Your task to perform on an android device: turn off notifications settings in the gmail app Image 0: 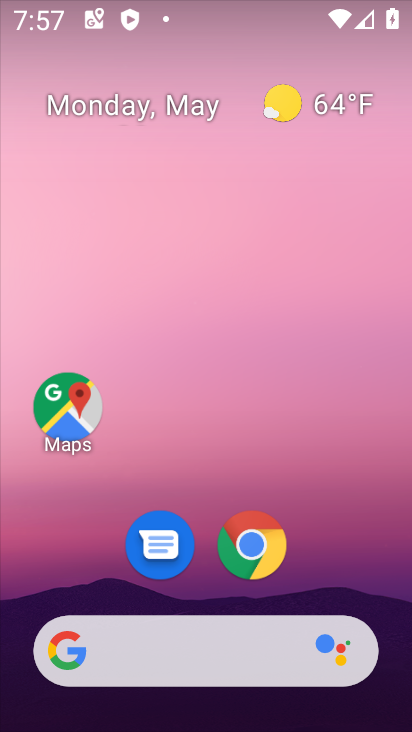
Step 0: drag from (132, 628) to (210, 47)
Your task to perform on an android device: turn off notifications settings in the gmail app Image 1: 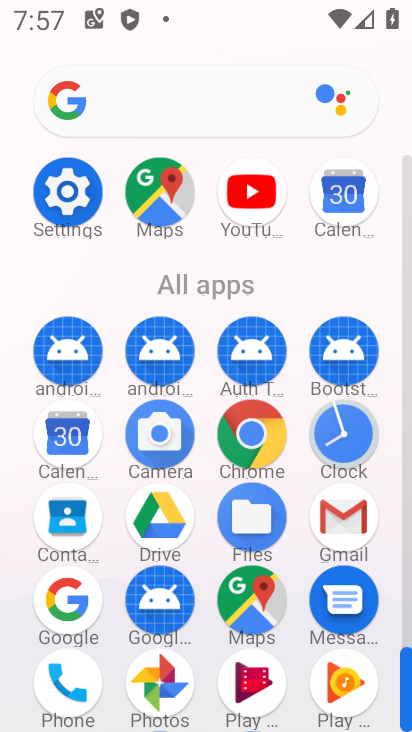
Step 1: click (329, 508)
Your task to perform on an android device: turn off notifications settings in the gmail app Image 2: 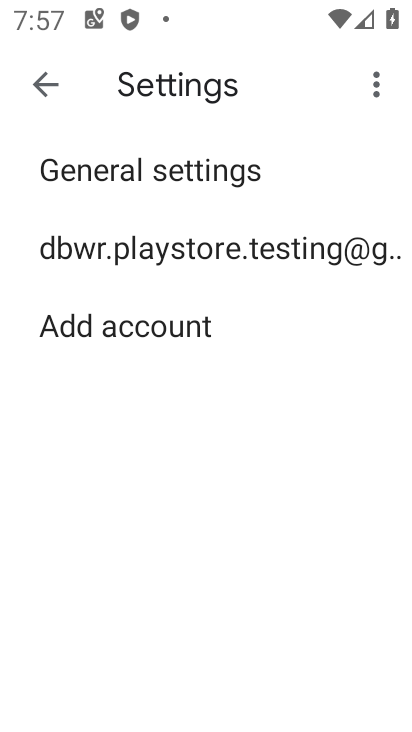
Step 2: click (163, 247)
Your task to perform on an android device: turn off notifications settings in the gmail app Image 3: 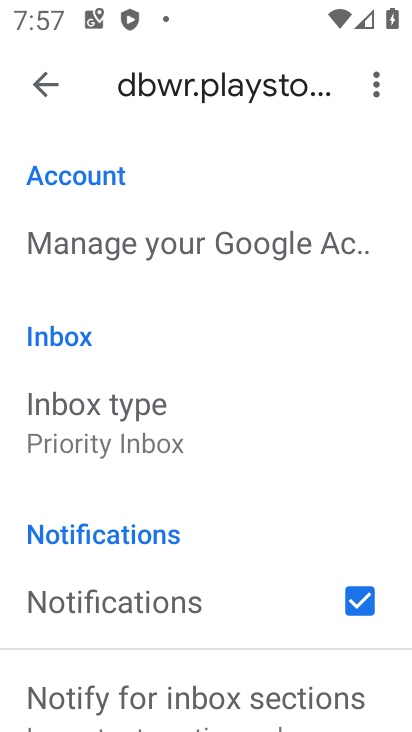
Step 3: drag from (171, 636) to (175, 49)
Your task to perform on an android device: turn off notifications settings in the gmail app Image 4: 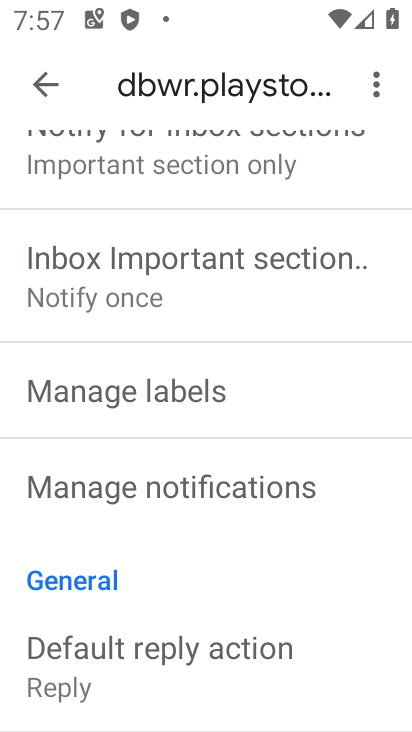
Step 4: click (201, 461)
Your task to perform on an android device: turn off notifications settings in the gmail app Image 5: 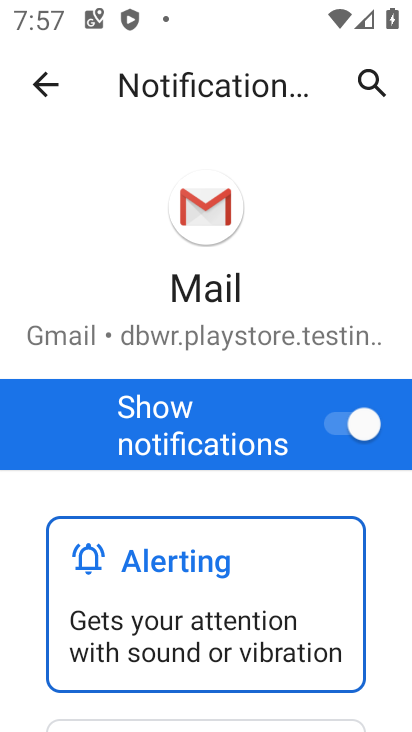
Step 5: click (356, 419)
Your task to perform on an android device: turn off notifications settings in the gmail app Image 6: 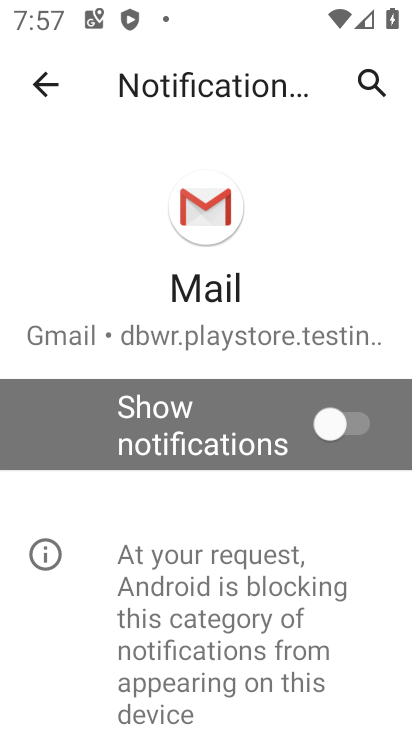
Step 6: task complete